Your task to perform on an android device: check the backup settings in the google photos Image 0: 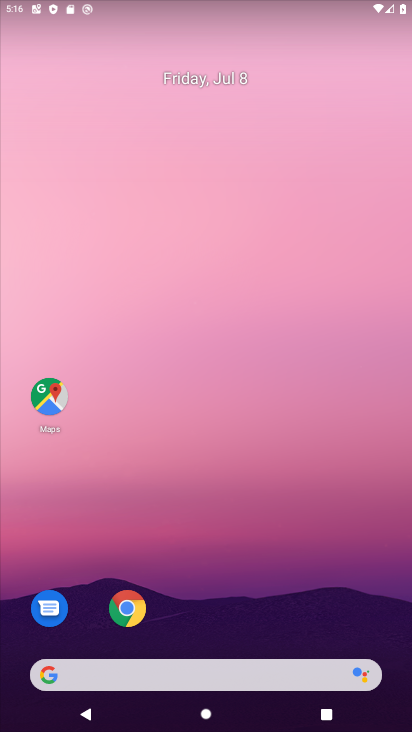
Step 0: drag from (227, 666) to (276, 2)
Your task to perform on an android device: check the backup settings in the google photos Image 1: 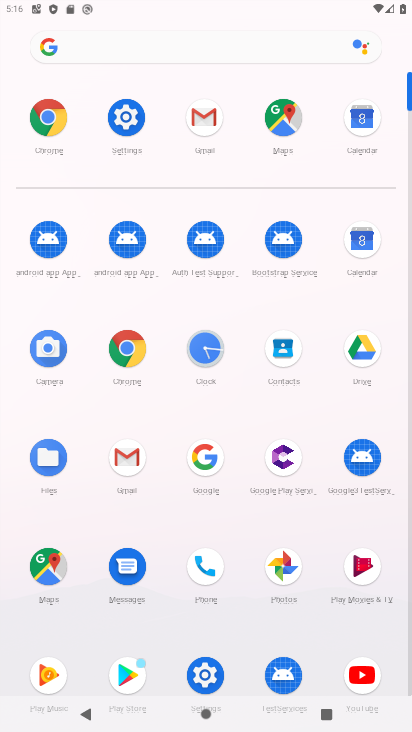
Step 1: click (280, 571)
Your task to perform on an android device: check the backup settings in the google photos Image 2: 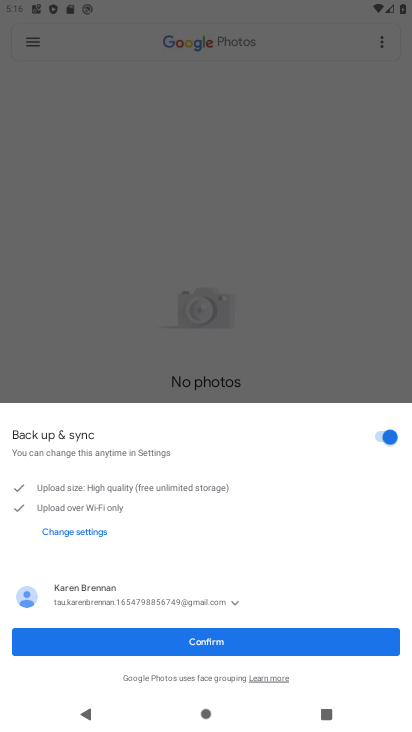
Step 2: click (223, 642)
Your task to perform on an android device: check the backup settings in the google photos Image 3: 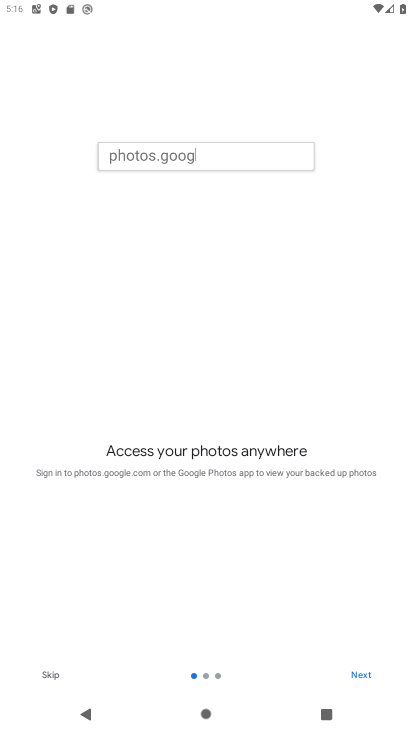
Step 3: click (361, 675)
Your task to perform on an android device: check the backup settings in the google photos Image 4: 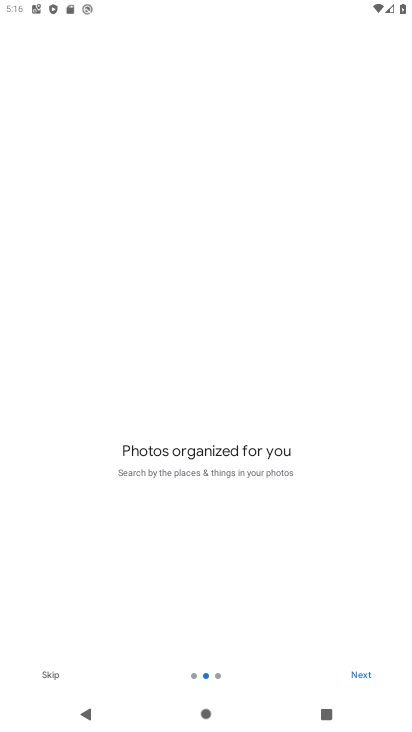
Step 4: click (361, 675)
Your task to perform on an android device: check the backup settings in the google photos Image 5: 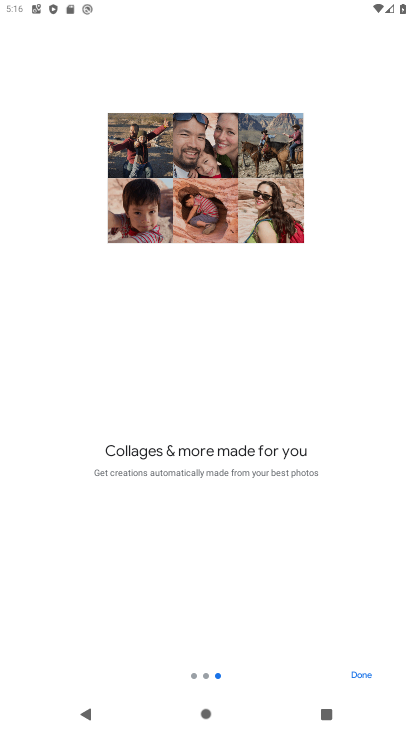
Step 5: click (361, 675)
Your task to perform on an android device: check the backup settings in the google photos Image 6: 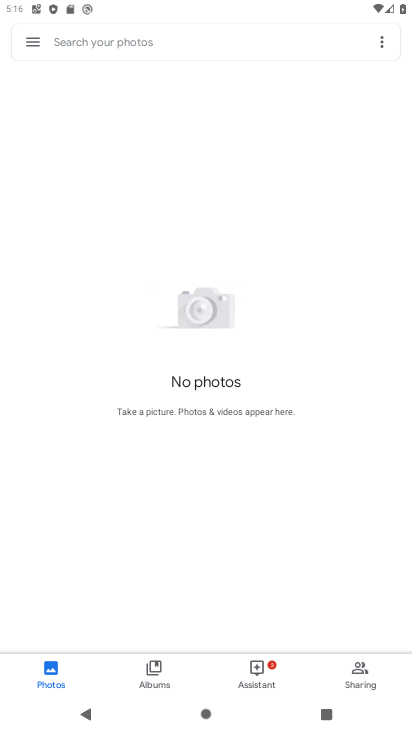
Step 6: click (383, 43)
Your task to perform on an android device: check the backup settings in the google photos Image 7: 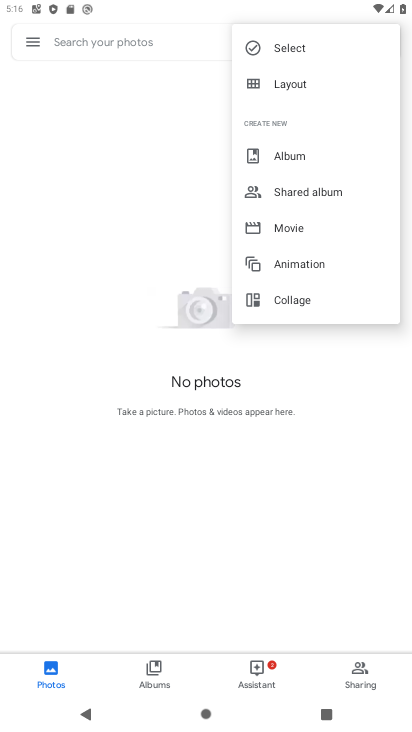
Step 7: click (286, 411)
Your task to perform on an android device: check the backup settings in the google photos Image 8: 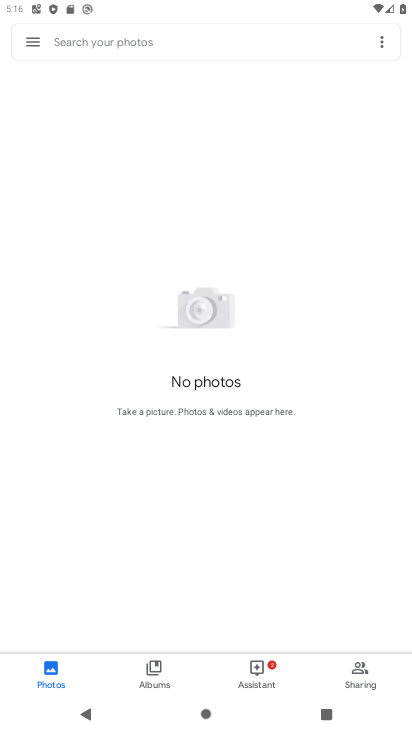
Step 8: click (21, 42)
Your task to perform on an android device: check the backup settings in the google photos Image 9: 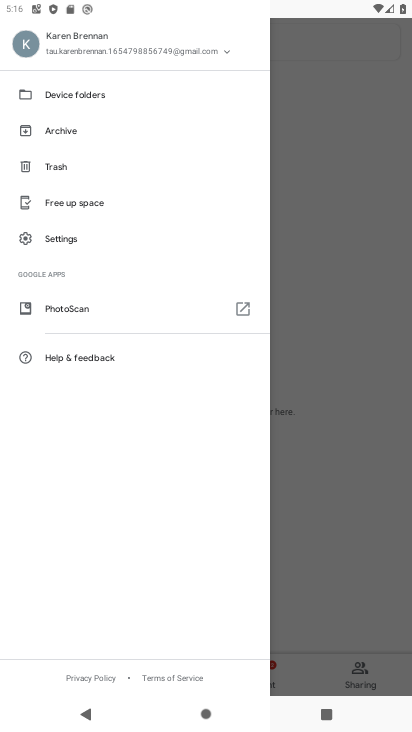
Step 9: click (73, 242)
Your task to perform on an android device: check the backup settings in the google photos Image 10: 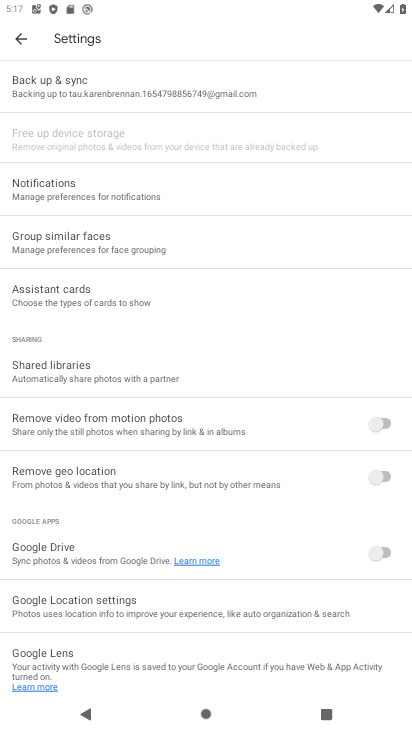
Step 10: click (151, 96)
Your task to perform on an android device: check the backup settings in the google photos Image 11: 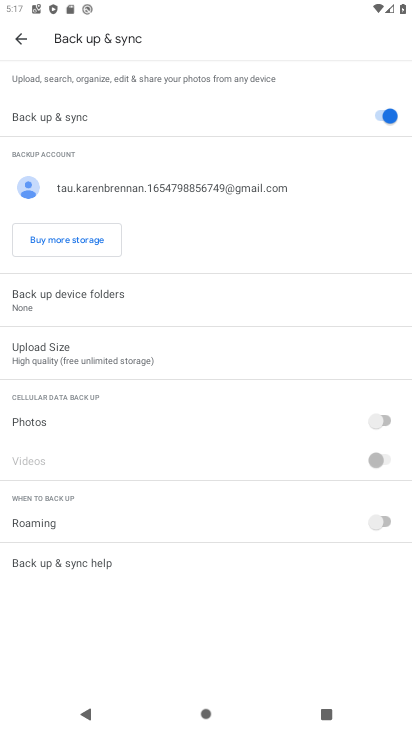
Step 11: task complete